Your task to perform on an android device: turn on showing notifications on the lock screen Image 0: 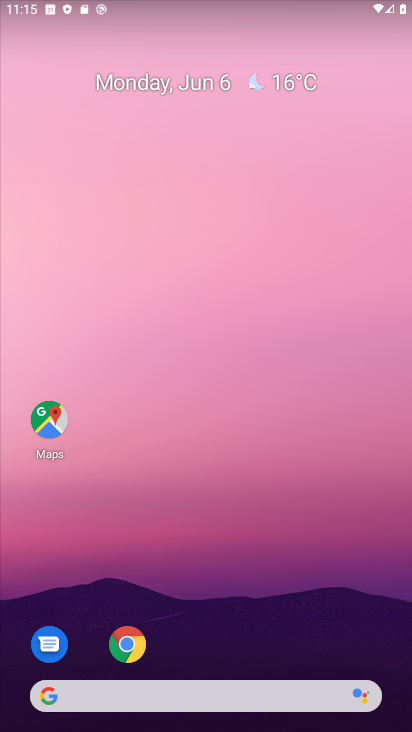
Step 0: drag from (260, 624) to (225, 185)
Your task to perform on an android device: turn on showing notifications on the lock screen Image 1: 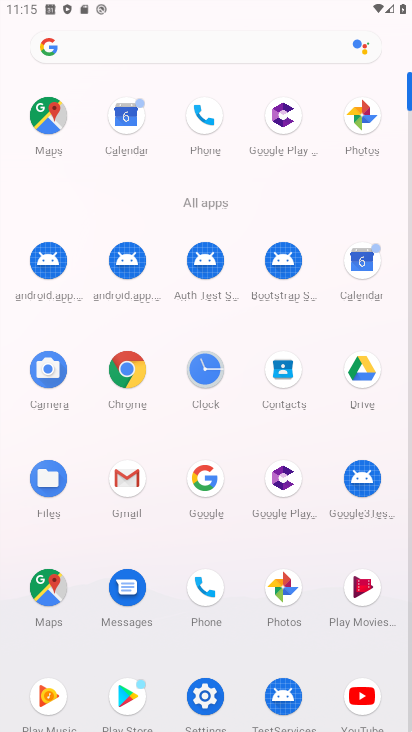
Step 1: drag from (174, 213) to (175, 22)
Your task to perform on an android device: turn on showing notifications on the lock screen Image 2: 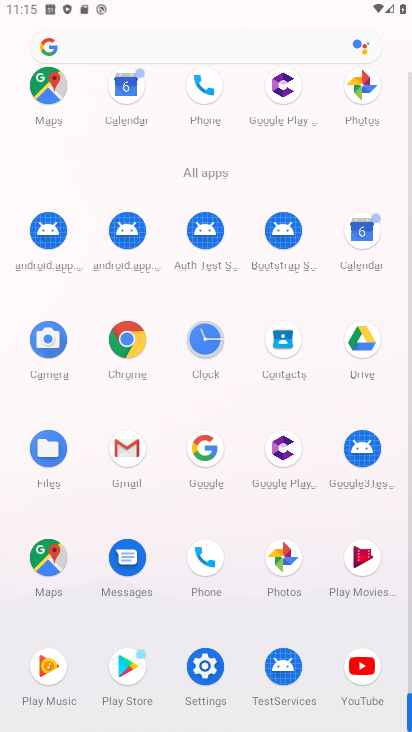
Step 2: click (210, 675)
Your task to perform on an android device: turn on showing notifications on the lock screen Image 3: 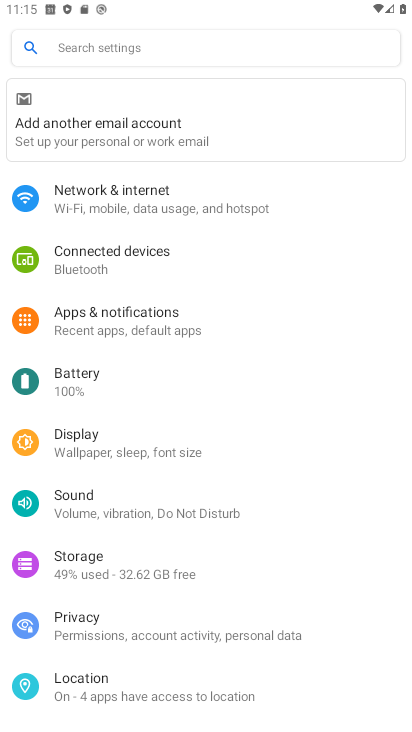
Step 3: click (183, 333)
Your task to perform on an android device: turn on showing notifications on the lock screen Image 4: 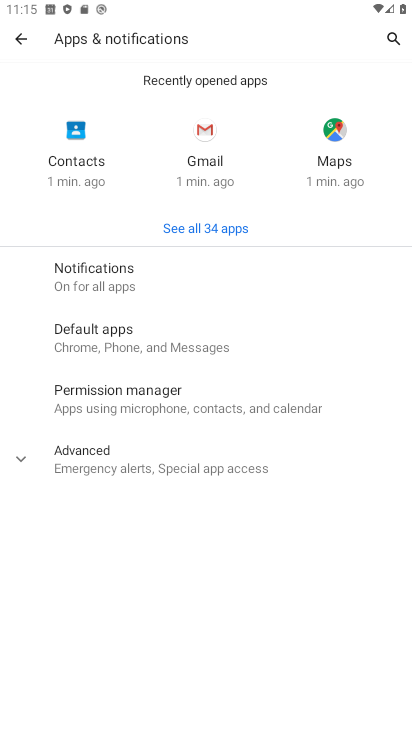
Step 4: click (172, 265)
Your task to perform on an android device: turn on showing notifications on the lock screen Image 5: 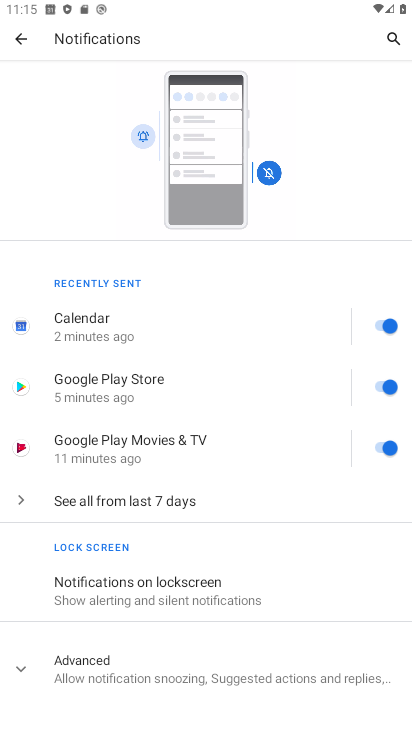
Step 5: click (135, 602)
Your task to perform on an android device: turn on showing notifications on the lock screen Image 6: 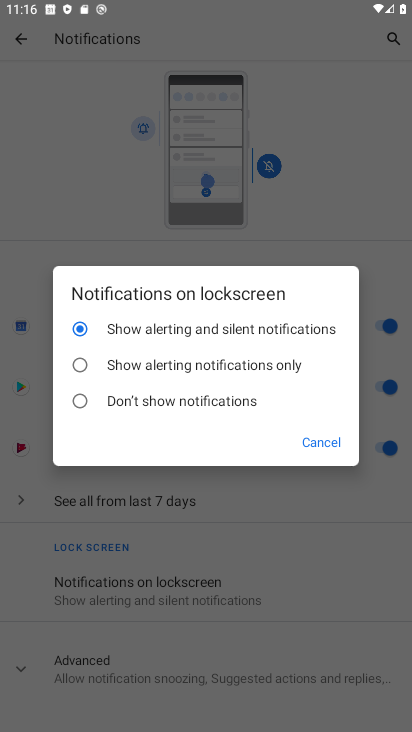
Step 6: task complete